Your task to perform on an android device: check storage Image 0: 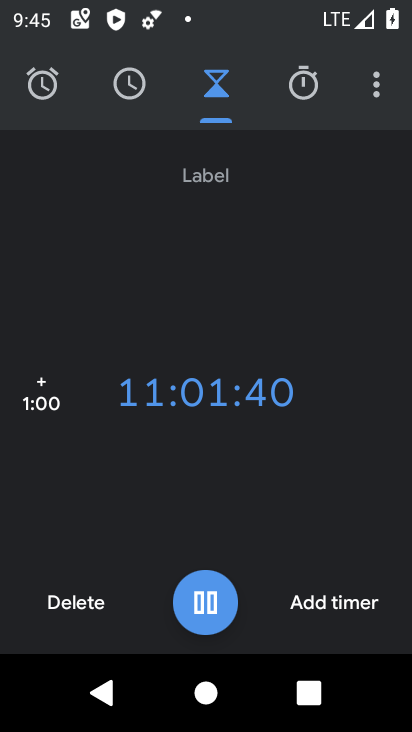
Step 0: press home button
Your task to perform on an android device: check storage Image 1: 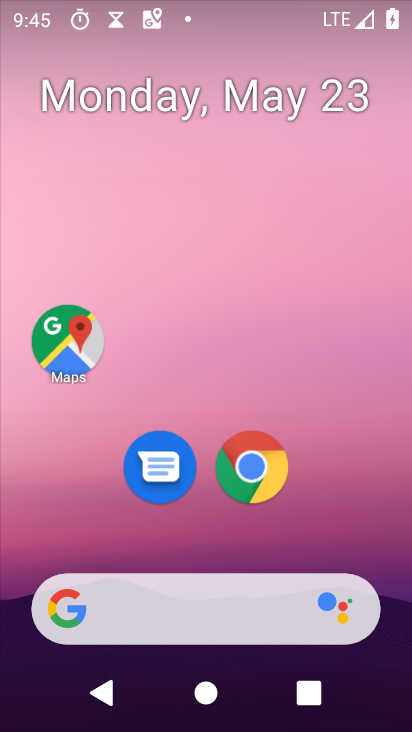
Step 1: drag from (317, 465) to (232, 65)
Your task to perform on an android device: check storage Image 2: 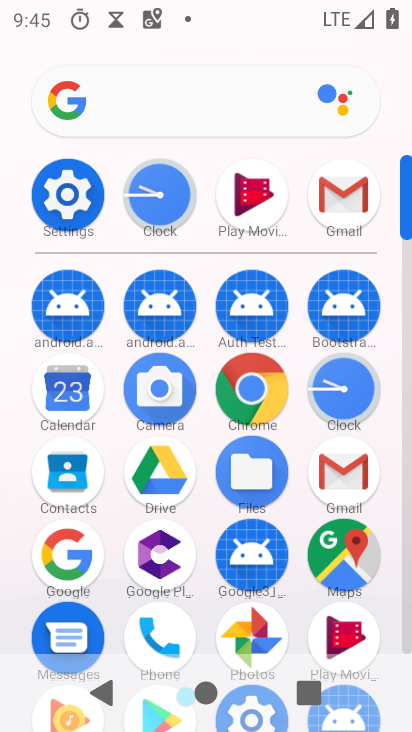
Step 2: click (73, 211)
Your task to perform on an android device: check storage Image 3: 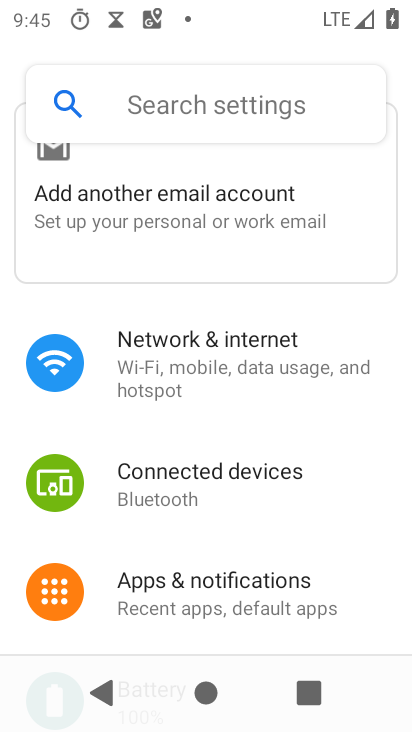
Step 3: drag from (200, 590) to (185, 195)
Your task to perform on an android device: check storage Image 4: 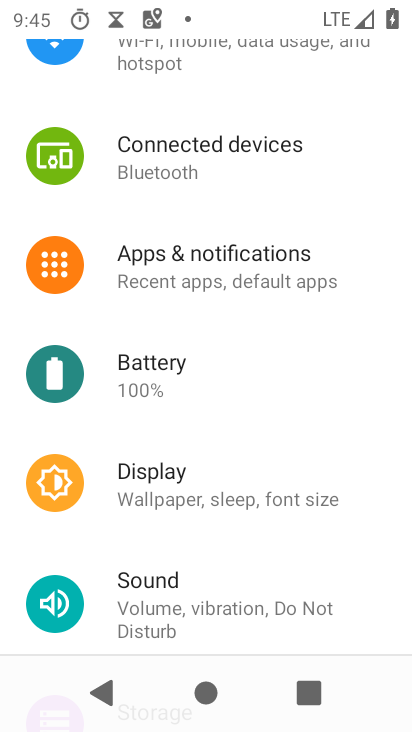
Step 4: drag from (270, 527) to (207, 109)
Your task to perform on an android device: check storage Image 5: 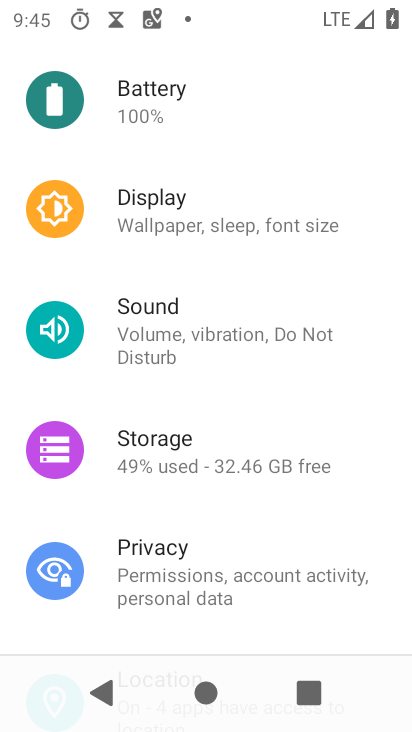
Step 5: click (255, 448)
Your task to perform on an android device: check storage Image 6: 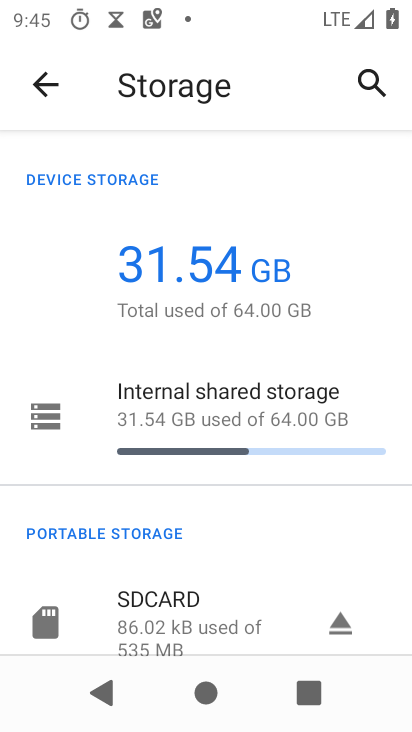
Step 6: task complete